Your task to perform on an android device: Add "bose quietcomfort 35" to the cart on newegg.com, then select checkout. Image 0: 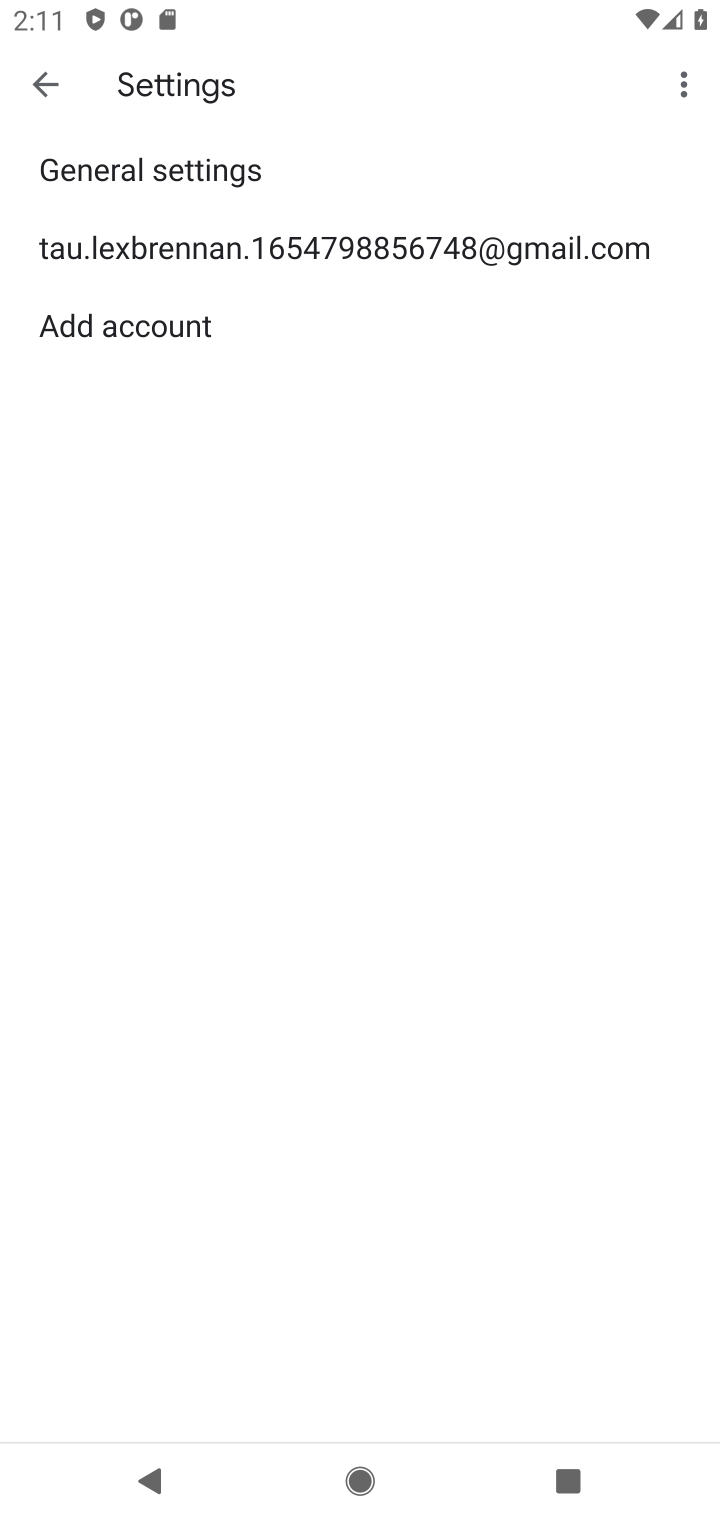
Step 0: press home button
Your task to perform on an android device: Add "bose quietcomfort 35" to the cart on newegg.com, then select checkout. Image 1: 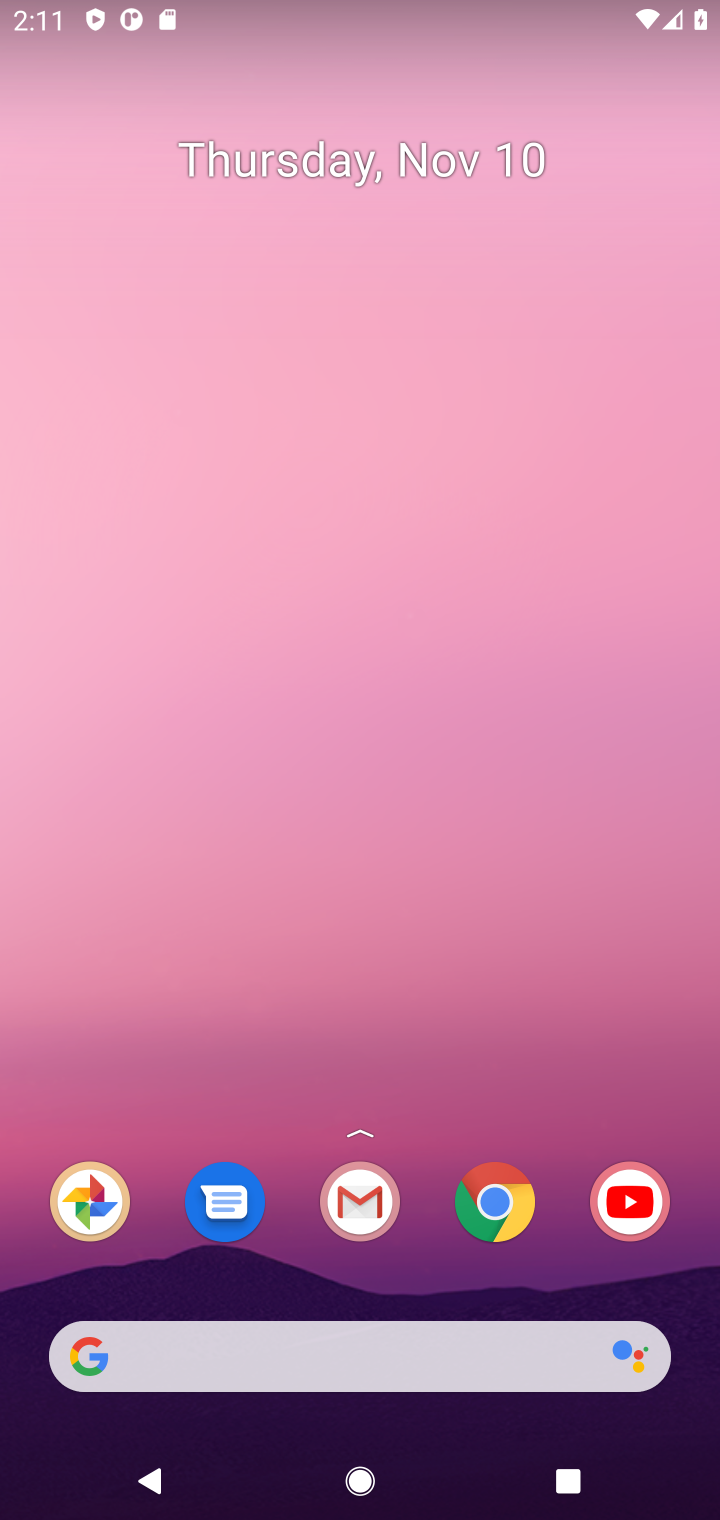
Step 1: click (503, 1186)
Your task to perform on an android device: Add "bose quietcomfort 35" to the cart on newegg.com, then select checkout. Image 2: 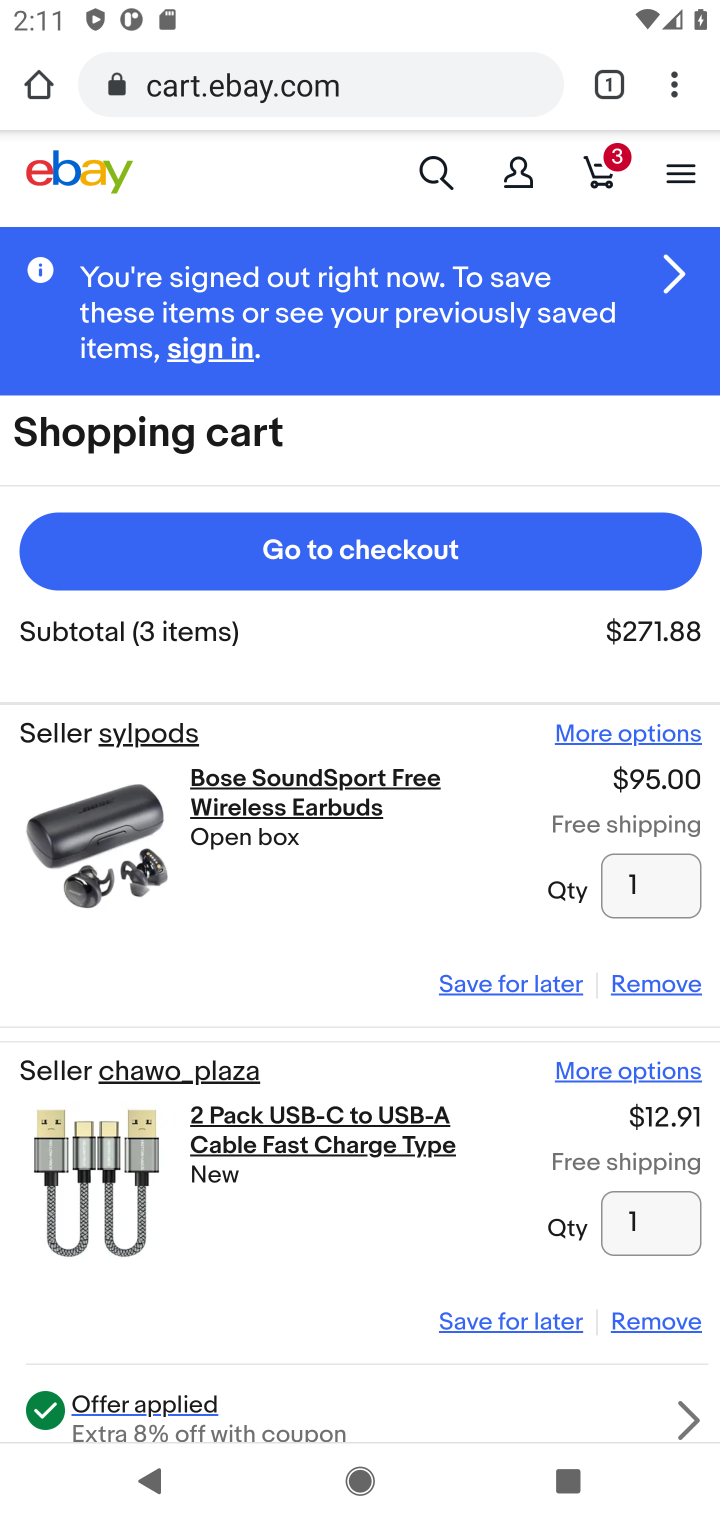
Step 2: click (463, 73)
Your task to perform on an android device: Add "bose quietcomfort 35" to the cart on newegg.com, then select checkout. Image 3: 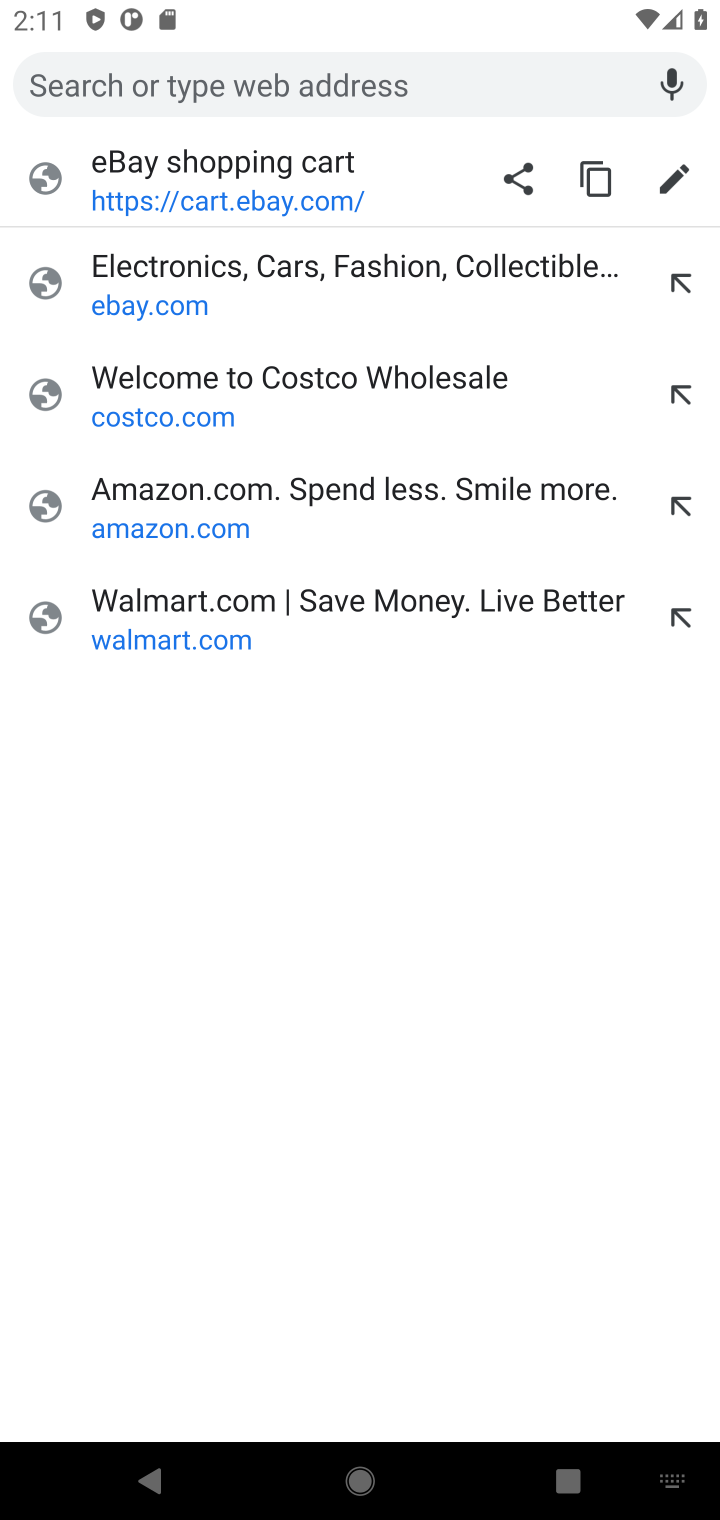
Step 3: type "newegg.com"
Your task to perform on an android device: Add "bose quietcomfort 35" to the cart on newegg.com, then select checkout. Image 4: 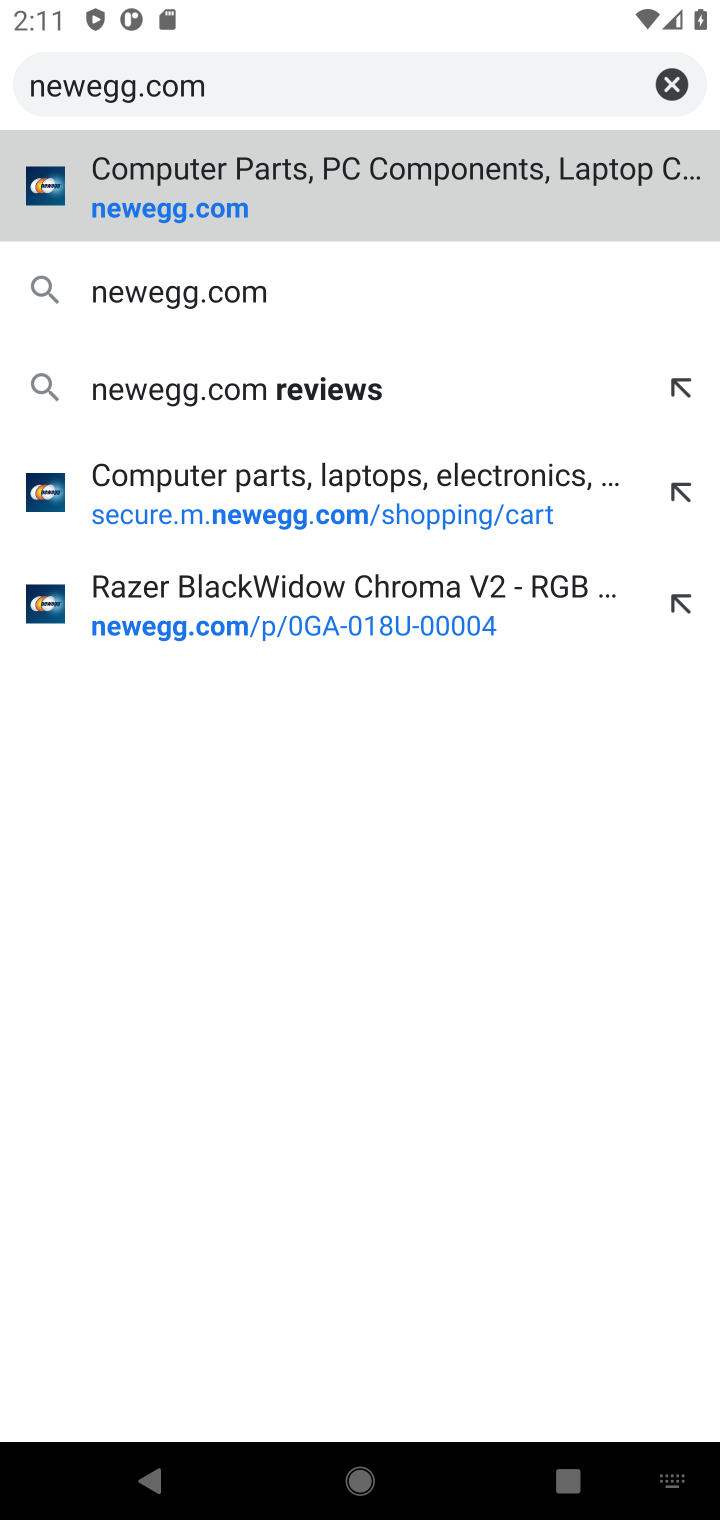
Step 4: press enter
Your task to perform on an android device: Add "bose quietcomfort 35" to the cart on newegg.com, then select checkout. Image 5: 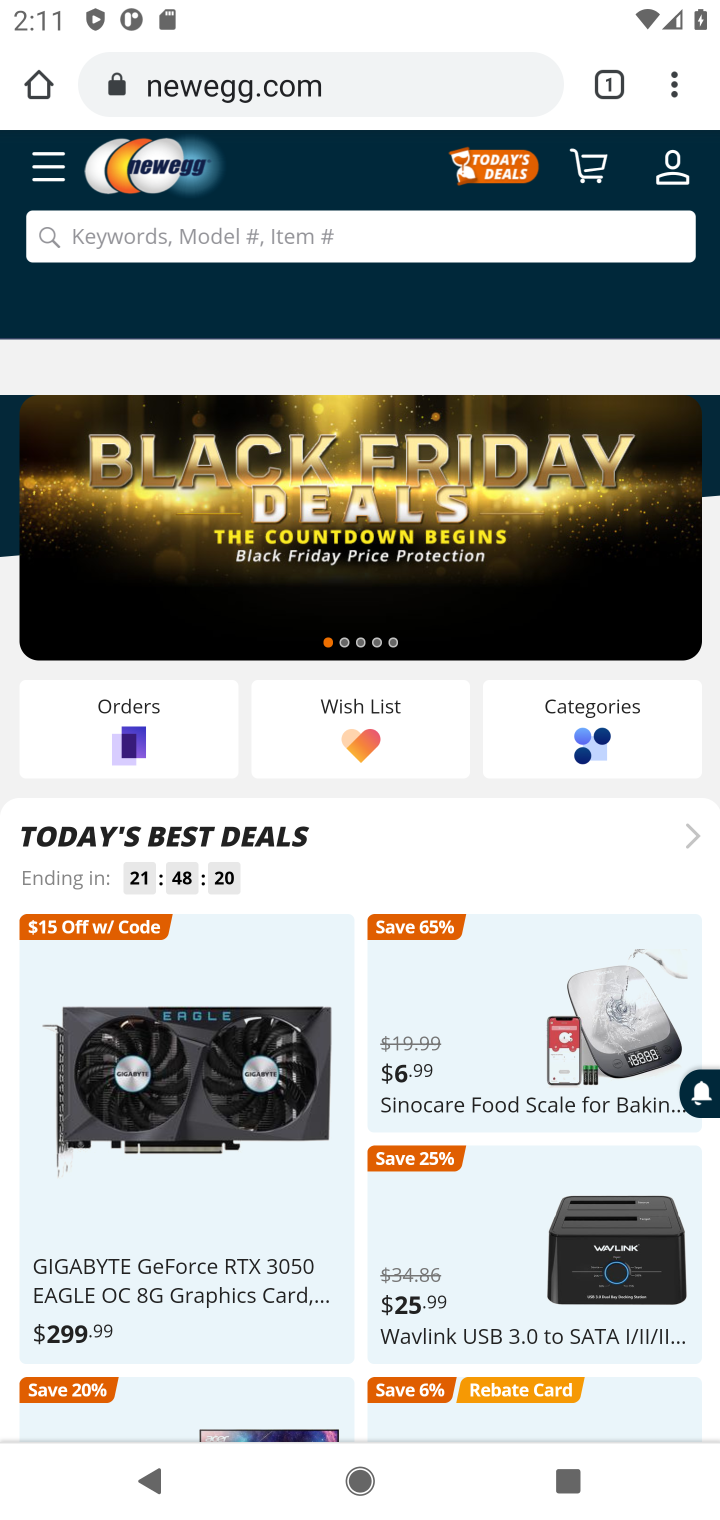
Step 5: click (401, 249)
Your task to perform on an android device: Add "bose quietcomfort 35" to the cart on newegg.com, then select checkout. Image 6: 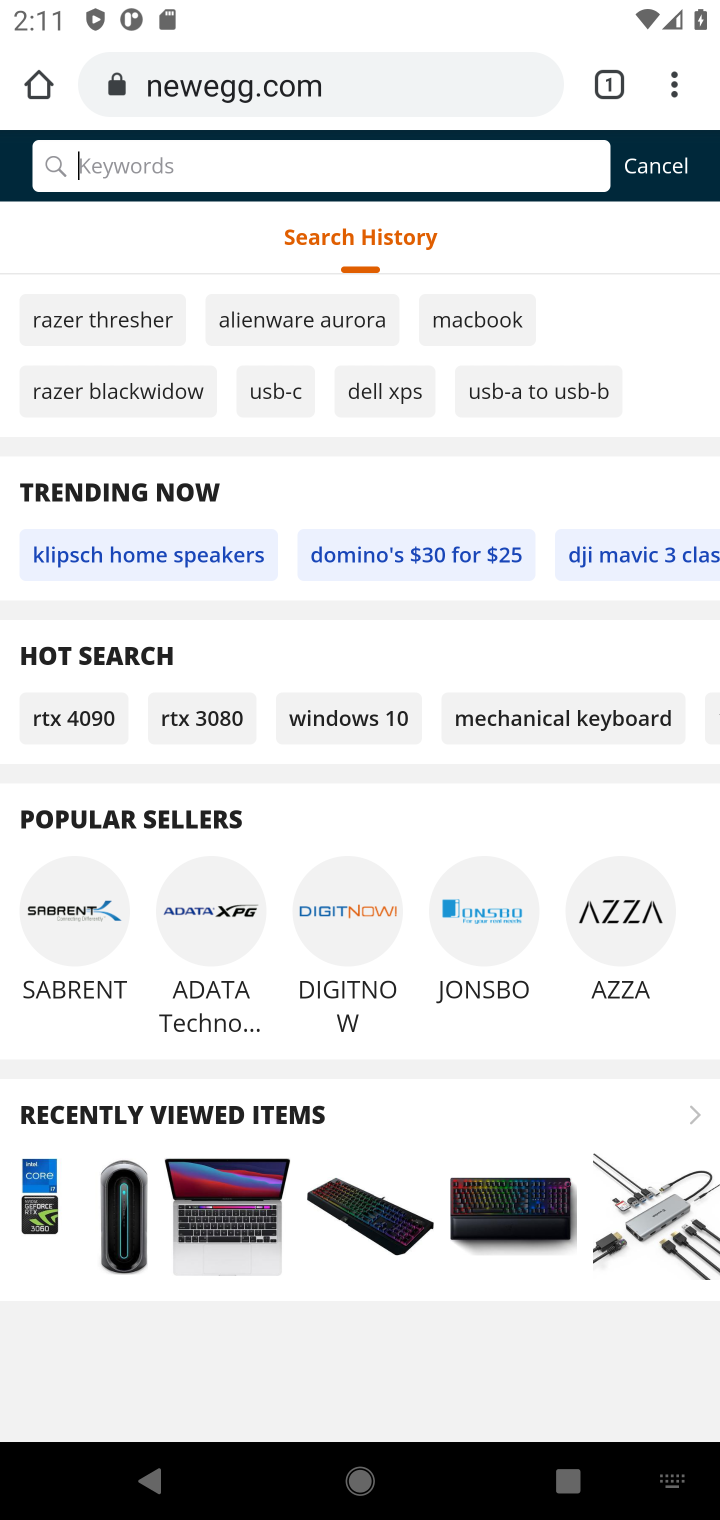
Step 6: type "bose quietcomfort 35"
Your task to perform on an android device: Add "bose quietcomfort 35" to the cart on newegg.com, then select checkout. Image 7: 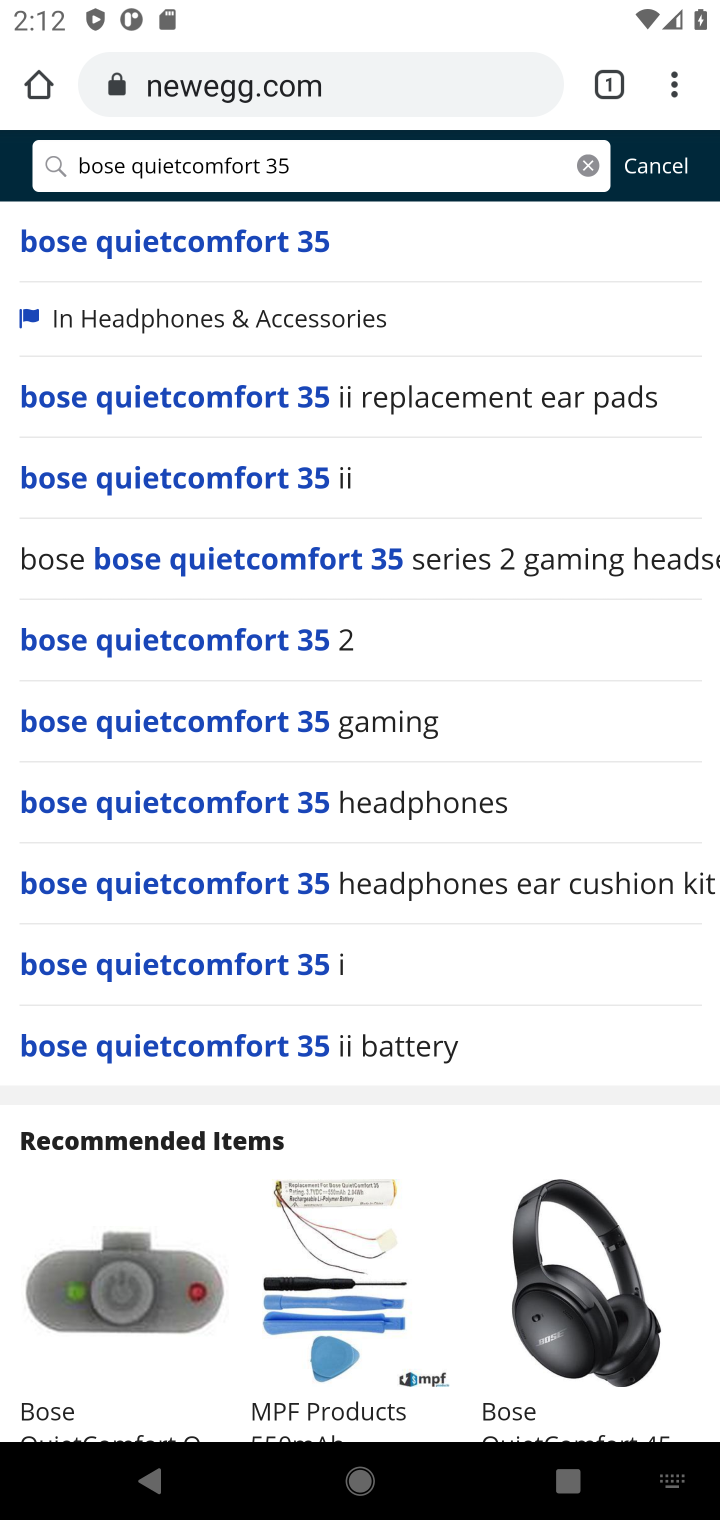
Step 7: click (254, 960)
Your task to perform on an android device: Add "bose quietcomfort 35" to the cart on newegg.com, then select checkout. Image 8: 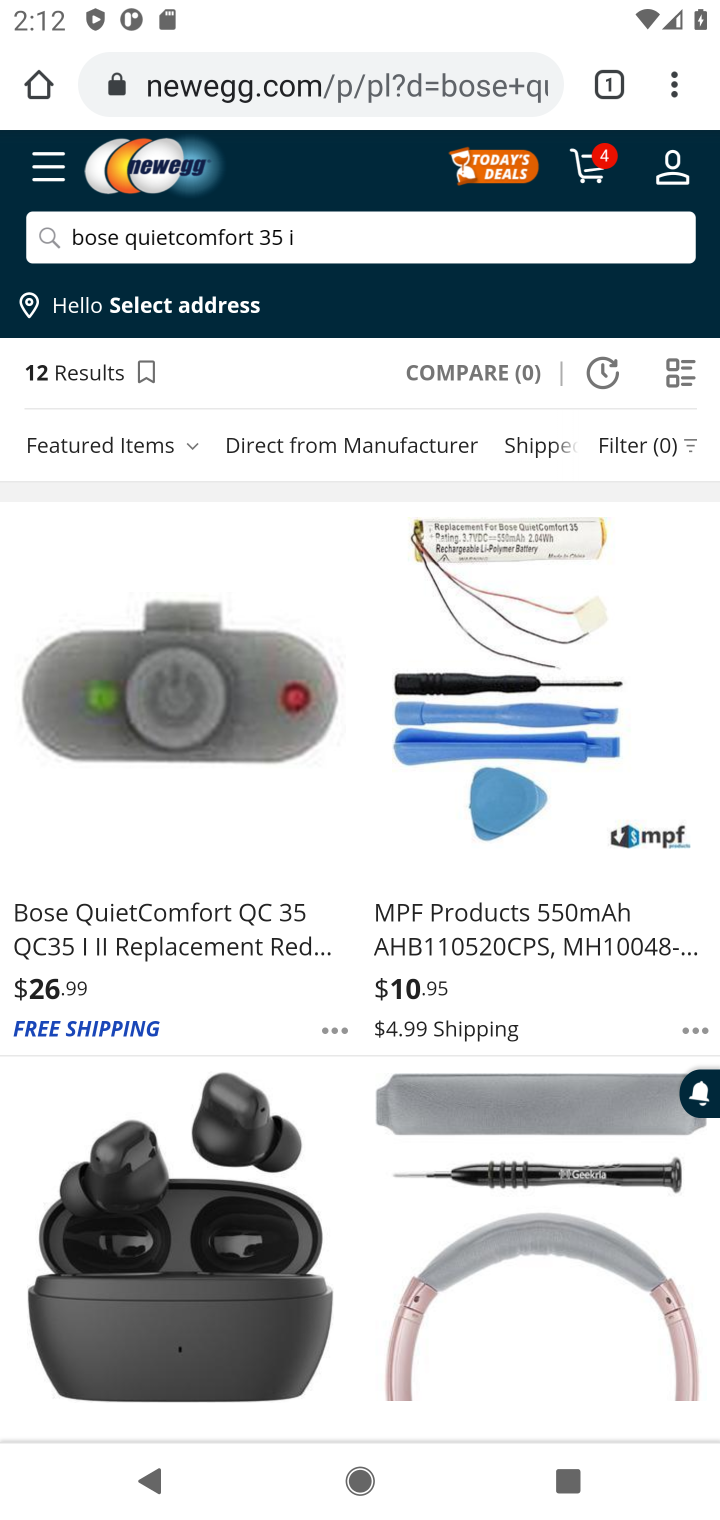
Step 8: click (198, 693)
Your task to perform on an android device: Add "bose quietcomfort 35" to the cart on newegg.com, then select checkout. Image 9: 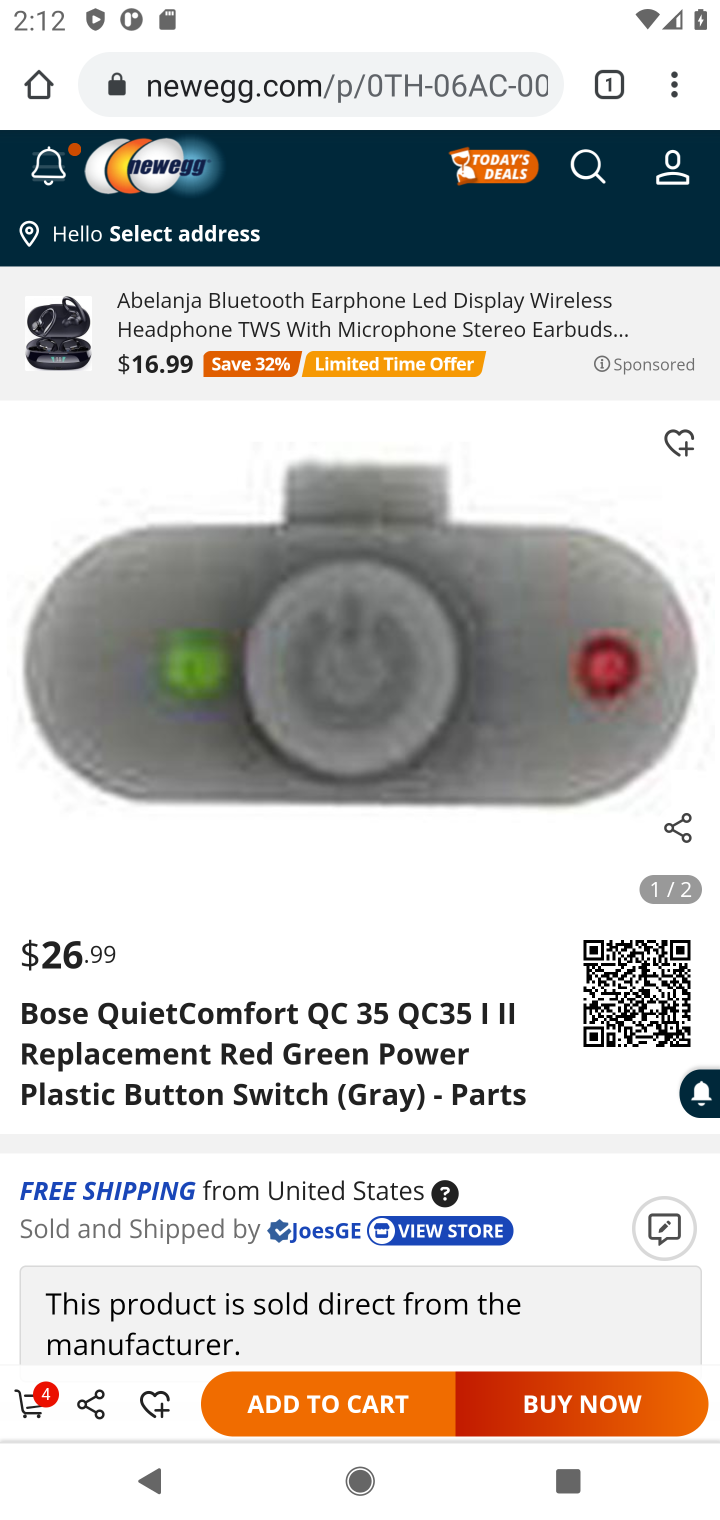
Step 9: task complete